Your task to perform on an android device: Open Maps and search for coffee Image 0: 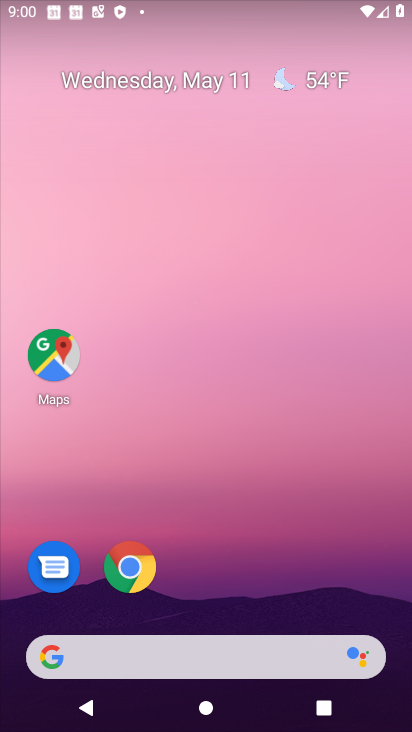
Step 0: click (67, 365)
Your task to perform on an android device: Open Maps and search for coffee Image 1: 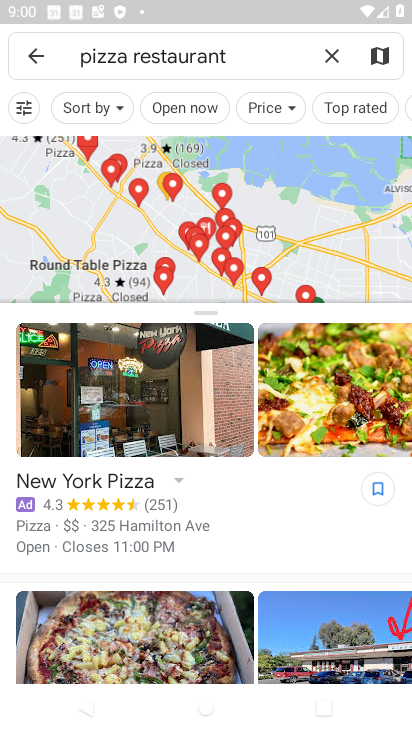
Step 1: click (322, 52)
Your task to perform on an android device: Open Maps and search for coffee Image 2: 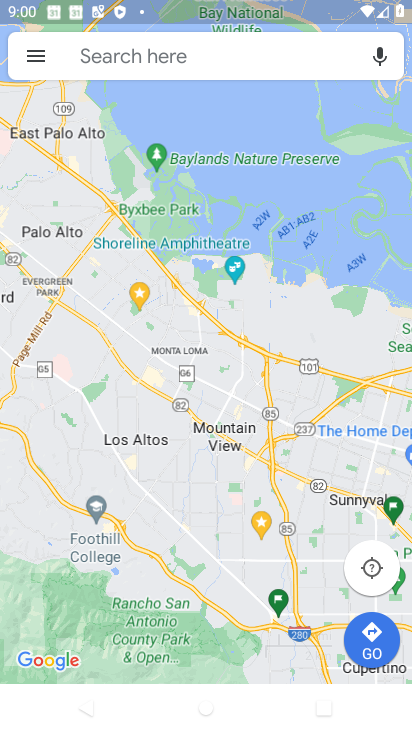
Step 2: click (202, 62)
Your task to perform on an android device: Open Maps and search for coffee Image 3: 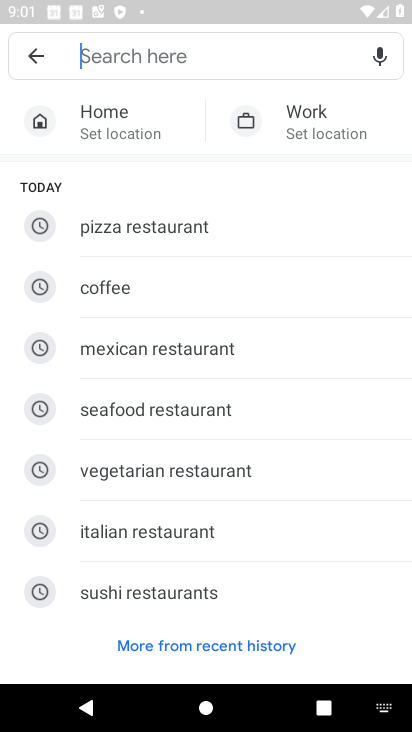
Step 3: type "coffee"
Your task to perform on an android device: Open Maps and search for coffee Image 4: 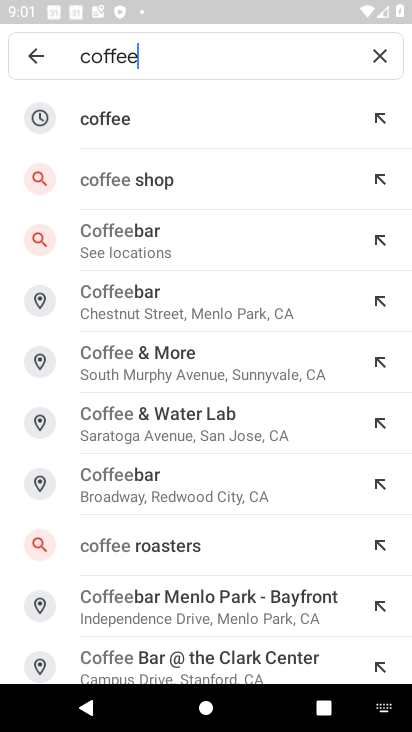
Step 4: click (205, 109)
Your task to perform on an android device: Open Maps and search for coffee Image 5: 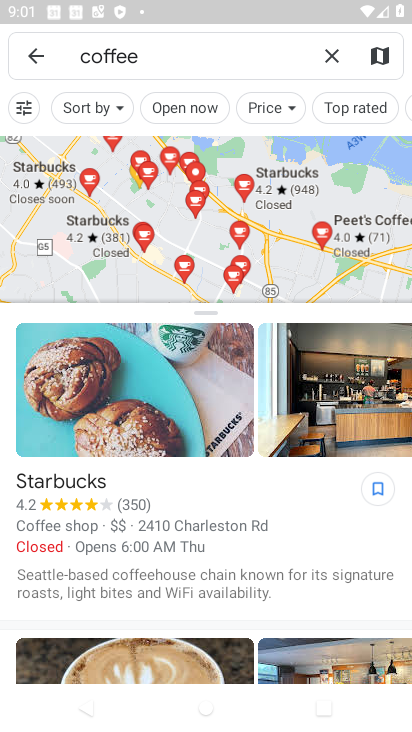
Step 5: task complete